Your task to perform on an android device: Search for sushi restaurants on Maps Image 0: 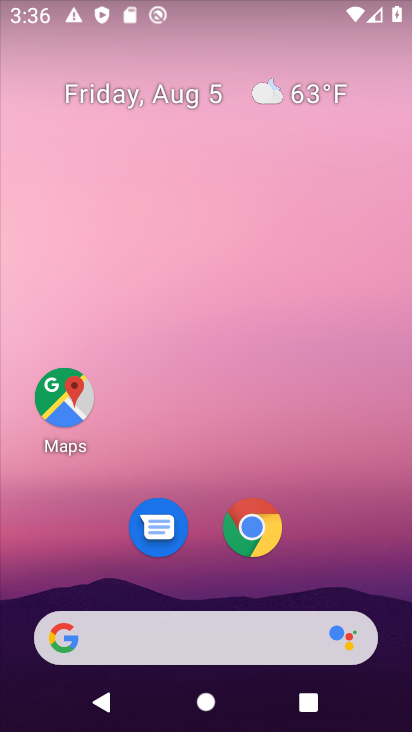
Step 0: drag from (196, 597) to (178, 177)
Your task to perform on an android device: Search for sushi restaurants on Maps Image 1: 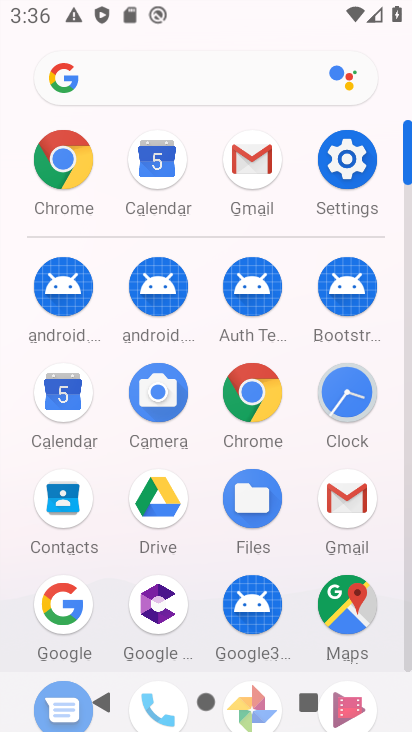
Step 1: click (353, 613)
Your task to perform on an android device: Search for sushi restaurants on Maps Image 2: 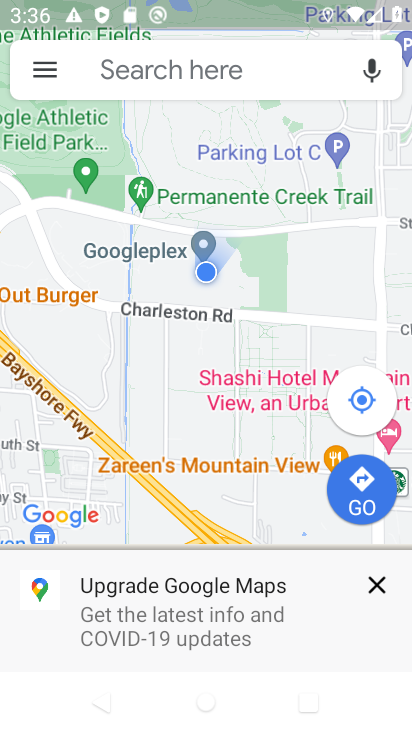
Step 2: click (211, 76)
Your task to perform on an android device: Search for sushi restaurants on Maps Image 3: 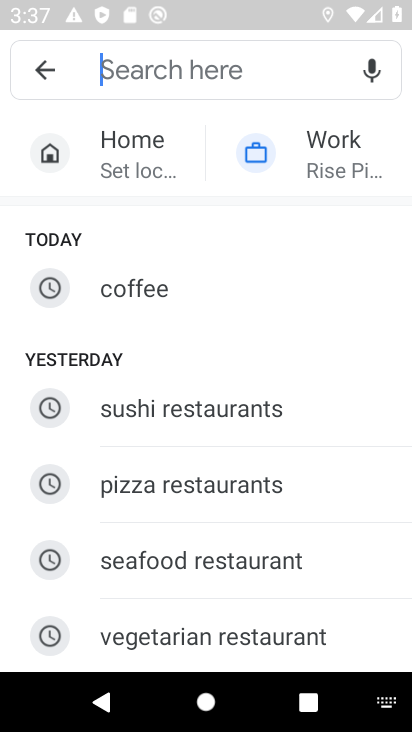
Step 3: type "sushi restaurants"
Your task to perform on an android device: Search for sushi restaurants on Maps Image 4: 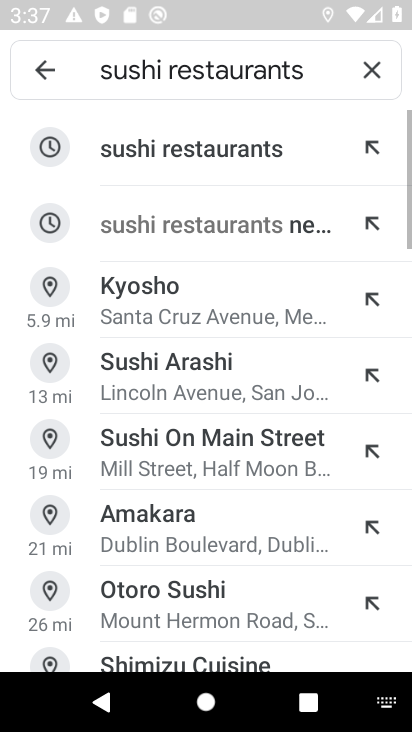
Step 4: click (194, 148)
Your task to perform on an android device: Search for sushi restaurants on Maps Image 5: 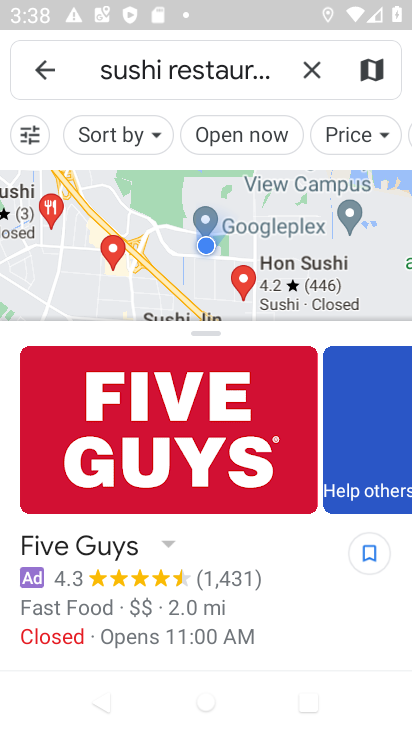
Step 5: task complete